Your task to perform on an android device: Show me popular videos on Youtube Image 0: 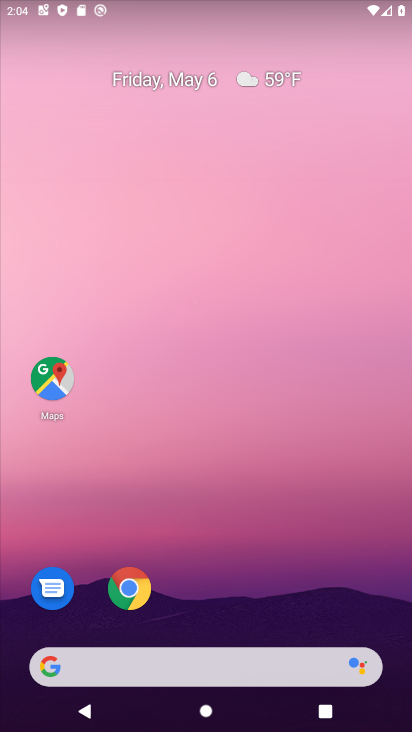
Step 0: drag from (183, 636) to (178, 311)
Your task to perform on an android device: Show me popular videos on Youtube Image 1: 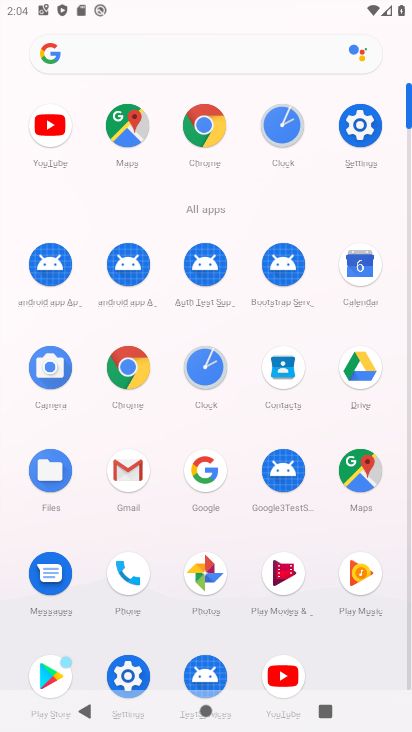
Step 1: click (274, 675)
Your task to perform on an android device: Show me popular videos on Youtube Image 2: 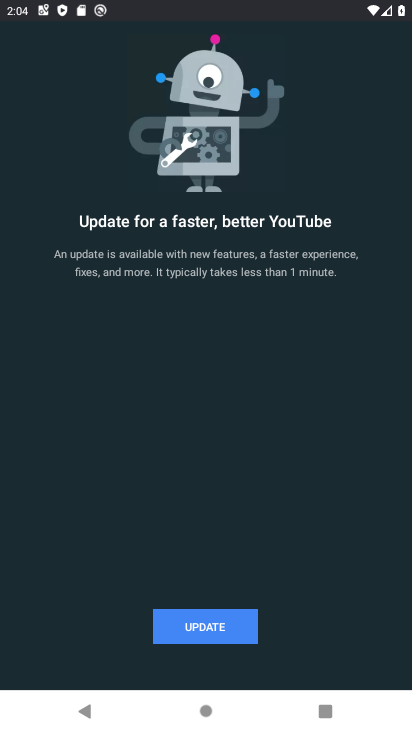
Step 2: click (220, 627)
Your task to perform on an android device: Show me popular videos on Youtube Image 3: 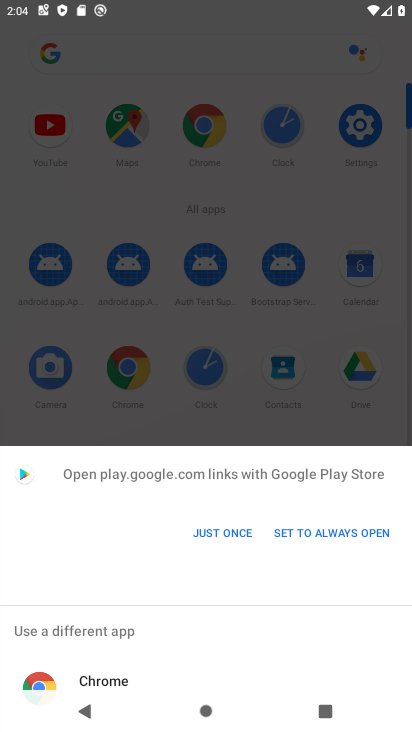
Step 3: click (225, 553)
Your task to perform on an android device: Show me popular videos on Youtube Image 4: 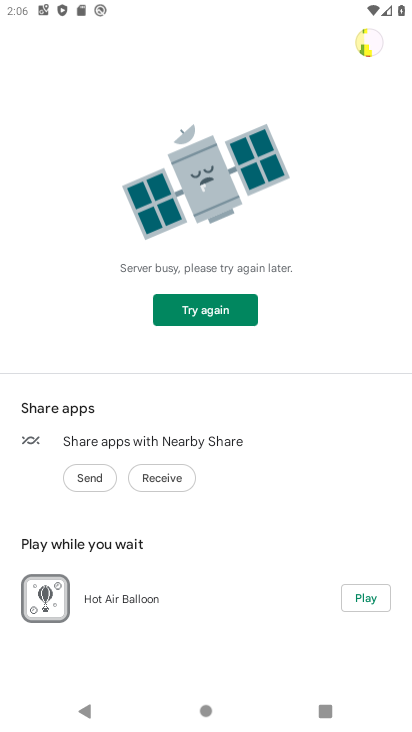
Step 4: task complete